Your task to perform on an android device: toggle improve location accuracy Image 0: 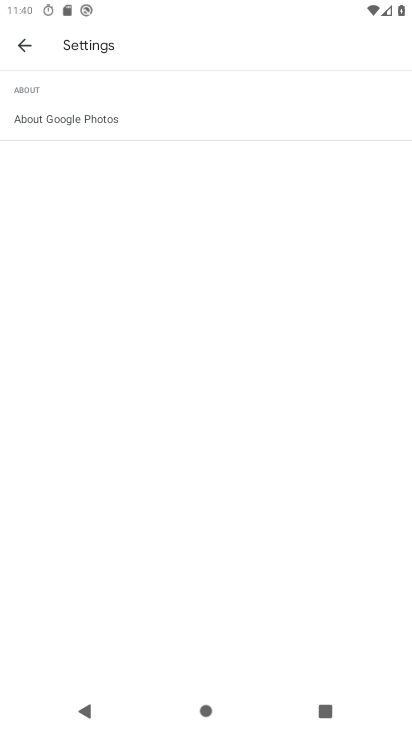
Step 0: press home button
Your task to perform on an android device: toggle improve location accuracy Image 1: 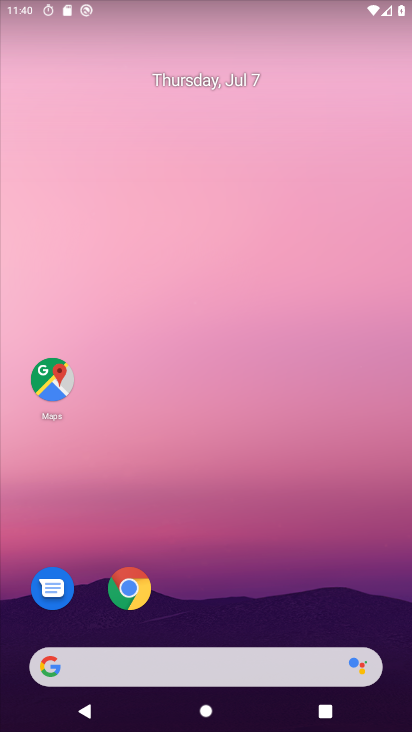
Step 1: click (41, 373)
Your task to perform on an android device: toggle improve location accuracy Image 2: 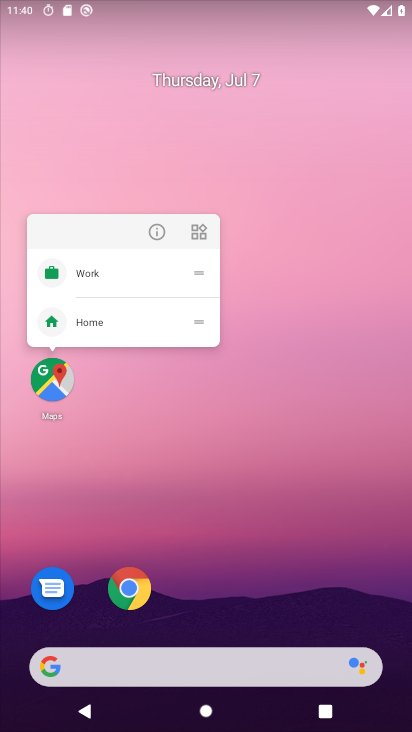
Step 2: click (47, 382)
Your task to perform on an android device: toggle improve location accuracy Image 3: 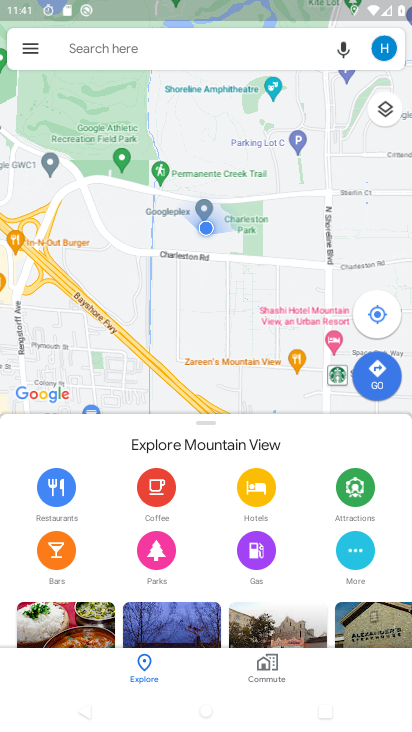
Step 3: click (24, 49)
Your task to perform on an android device: toggle improve location accuracy Image 4: 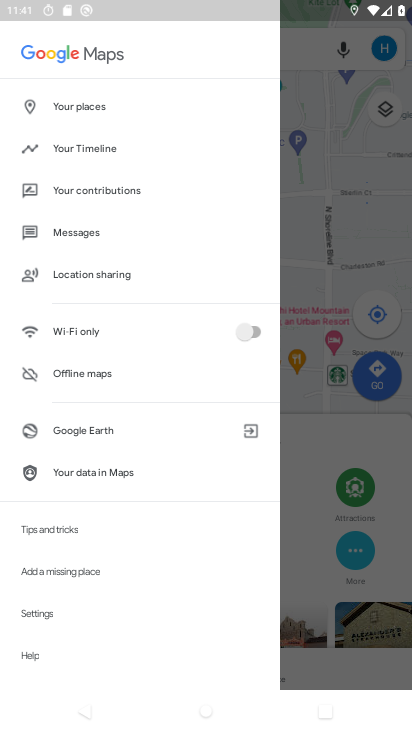
Step 4: click (93, 150)
Your task to perform on an android device: toggle improve location accuracy Image 5: 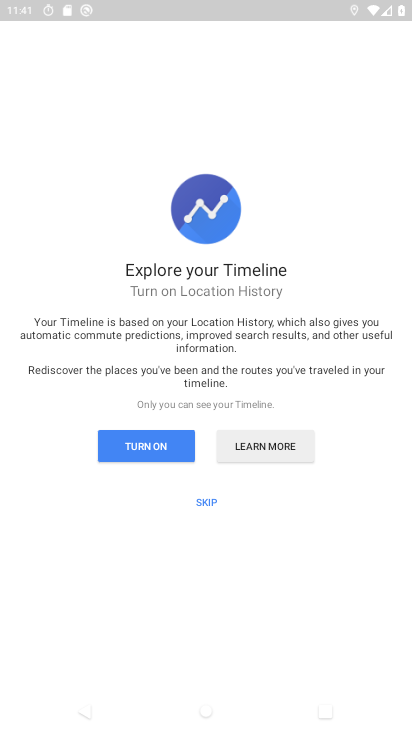
Step 5: click (206, 495)
Your task to perform on an android device: toggle improve location accuracy Image 6: 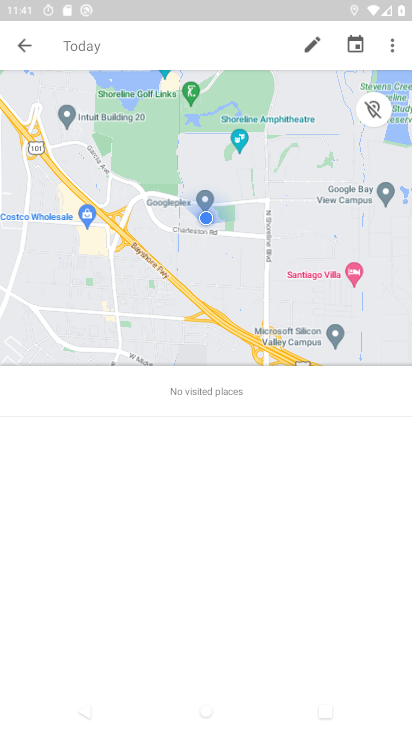
Step 6: click (389, 40)
Your task to perform on an android device: toggle improve location accuracy Image 7: 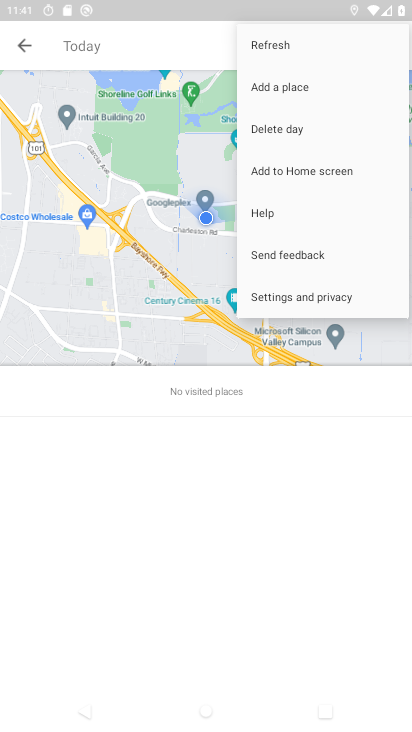
Step 7: click (285, 293)
Your task to perform on an android device: toggle improve location accuracy Image 8: 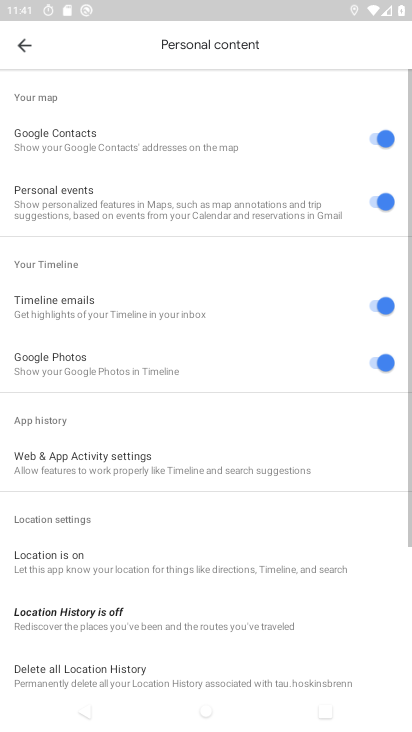
Step 8: drag from (176, 630) to (348, 179)
Your task to perform on an android device: toggle improve location accuracy Image 9: 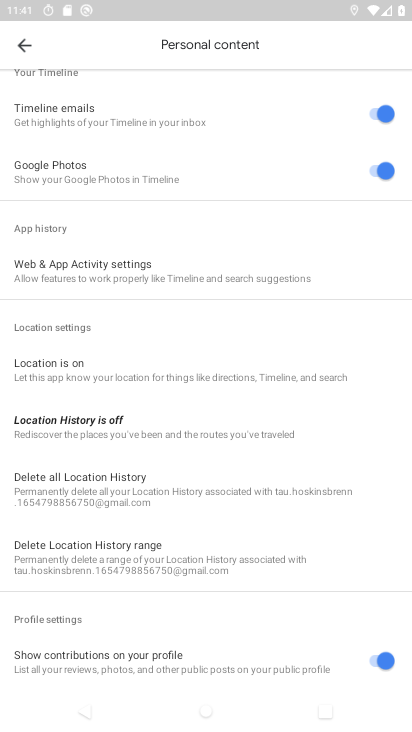
Step 9: click (140, 423)
Your task to perform on an android device: toggle improve location accuracy Image 10: 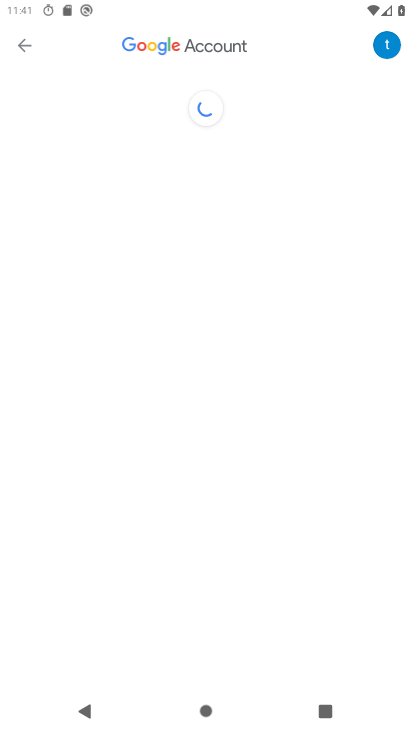
Step 10: click (358, 471)
Your task to perform on an android device: toggle improve location accuracy Image 11: 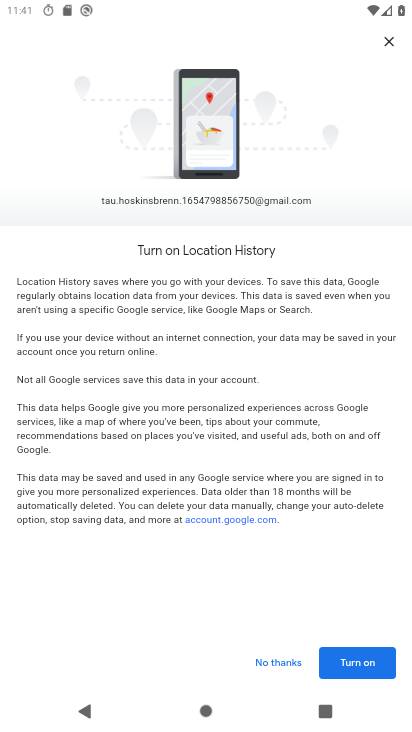
Step 11: click (351, 665)
Your task to perform on an android device: toggle improve location accuracy Image 12: 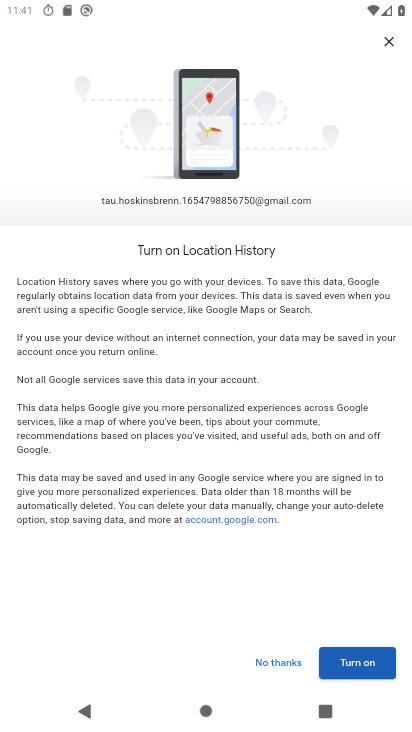
Step 12: click (354, 665)
Your task to perform on an android device: toggle improve location accuracy Image 13: 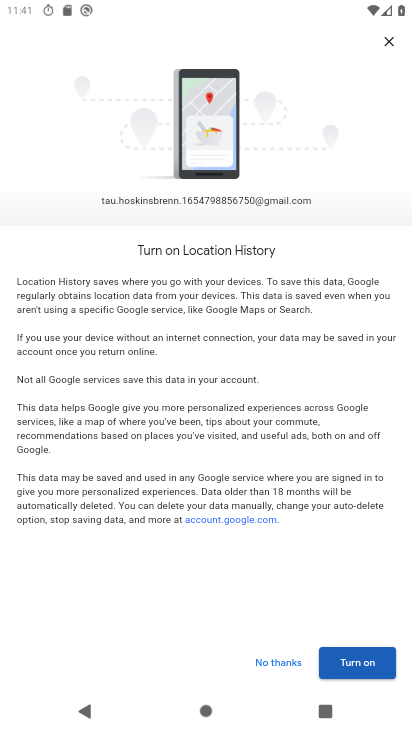
Step 13: click (362, 665)
Your task to perform on an android device: toggle improve location accuracy Image 14: 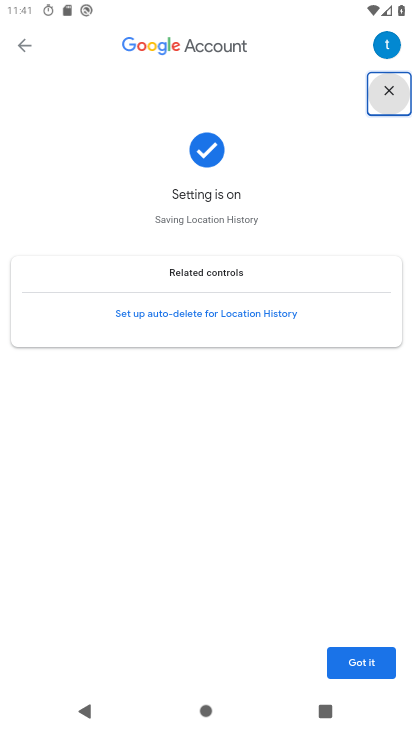
Step 14: click (367, 661)
Your task to perform on an android device: toggle improve location accuracy Image 15: 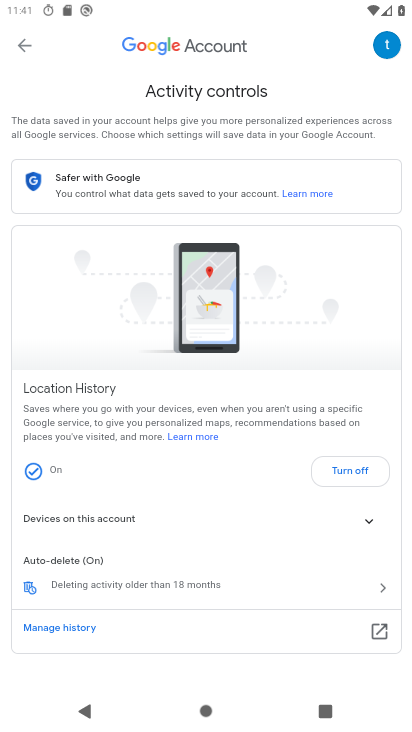
Step 15: task complete